Your task to perform on an android device: turn pop-ups off in chrome Image 0: 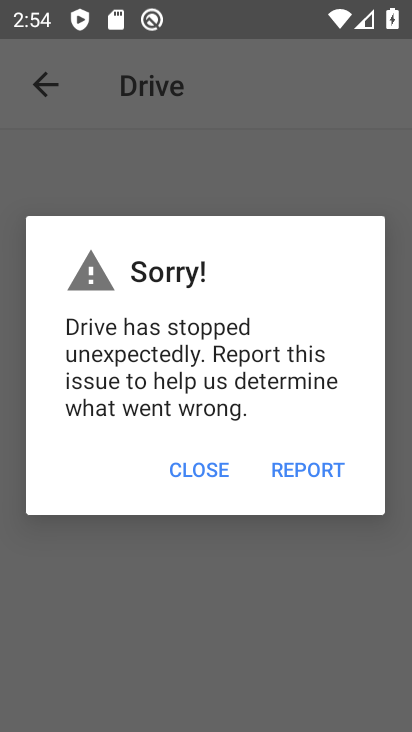
Step 0: press home button
Your task to perform on an android device: turn pop-ups off in chrome Image 1: 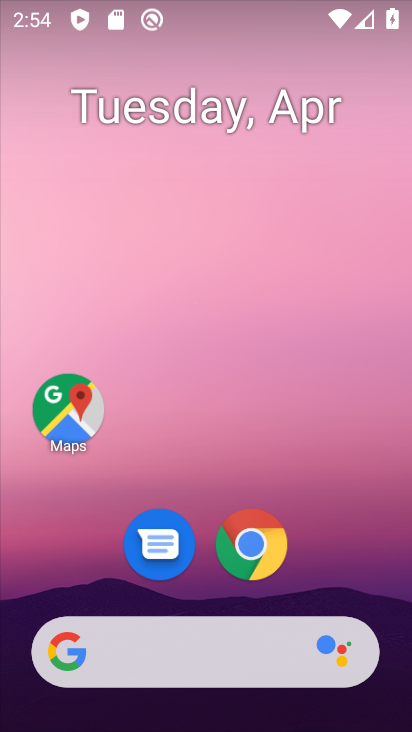
Step 1: drag from (316, 563) to (324, 73)
Your task to perform on an android device: turn pop-ups off in chrome Image 2: 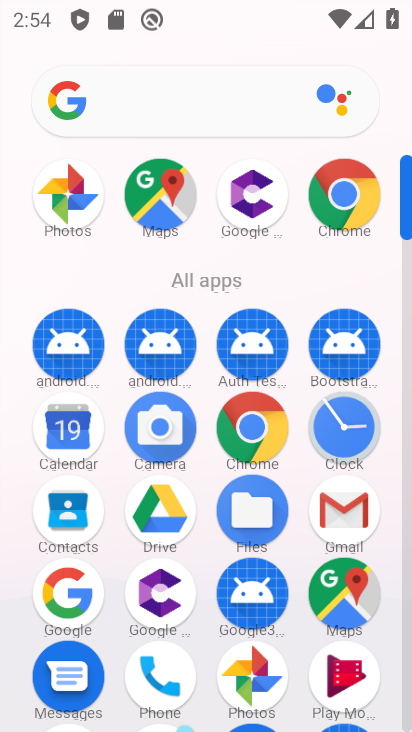
Step 2: click (344, 198)
Your task to perform on an android device: turn pop-ups off in chrome Image 3: 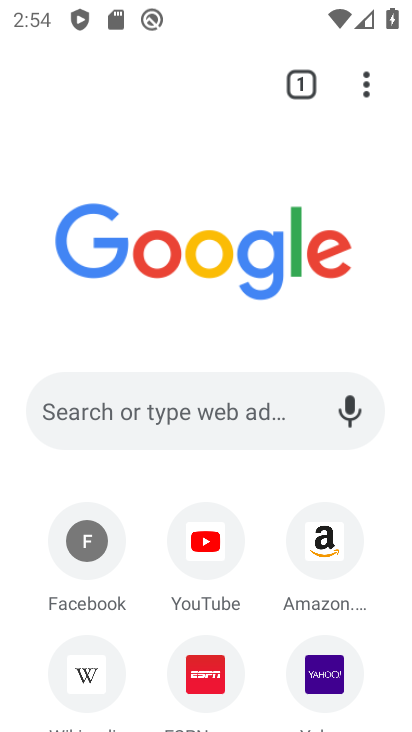
Step 3: drag from (360, 88) to (96, 601)
Your task to perform on an android device: turn pop-ups off in chrome Image 4: 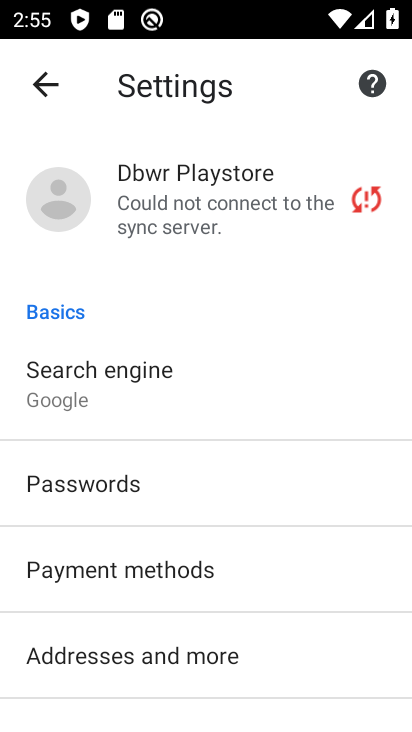
Step 4: drag from (249, 598) to (264, 340)
Your task to perform on an android device: turn pop-ups off in chrome Image 5: 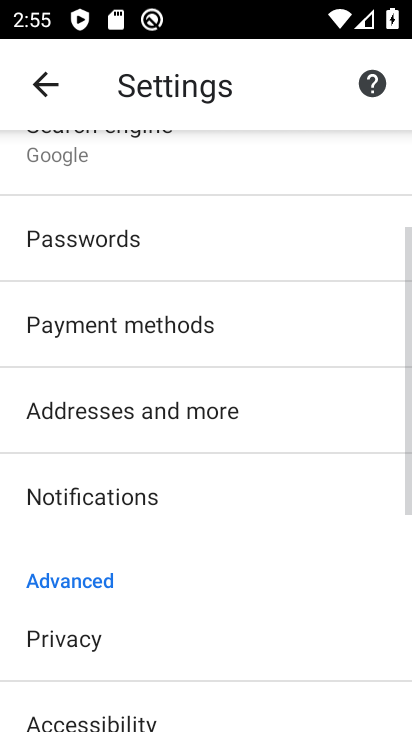
Step 5: drag from (202, 701) to (242, 410)
Your task to perform on an android device: turn pop-ups off in chrome Image 6: 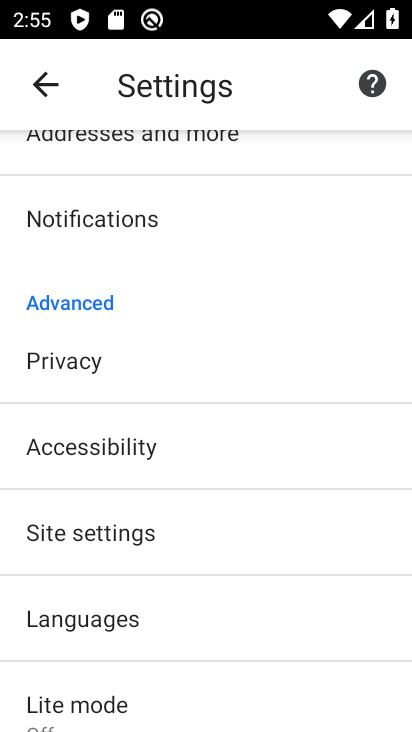
Step 6: click (96, 535)
Your task to perform on an android device: turn pop-ups off in chrome Image 7: 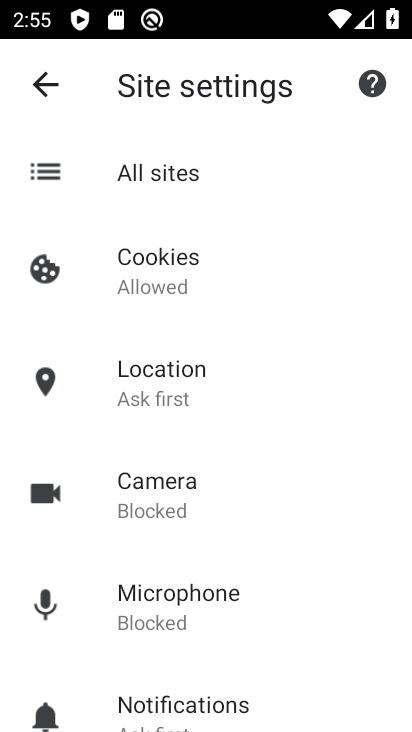
Step 7: drag from (301, 591) to (328, 251)
Your task to perform on an android device: turn pop-ups off in chrome Image 8: 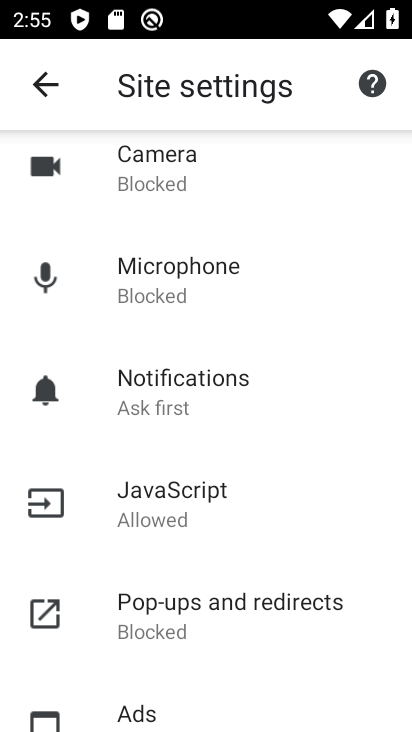
Step 8: click (175, 603)
Your task to perform on an android device: turn pop-ups off in chrome Image 9: 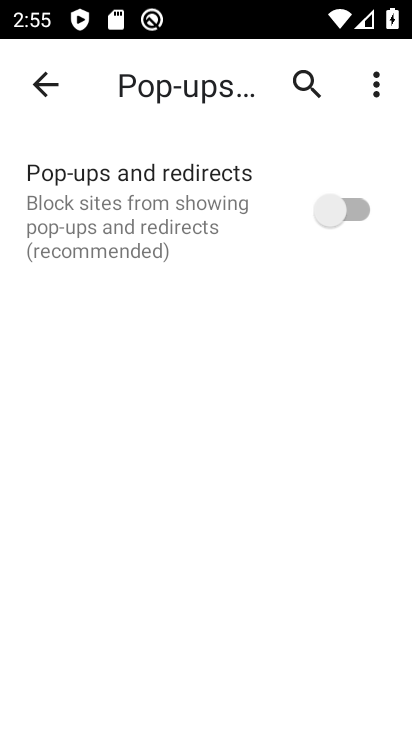
Step 9: task complete